Your task to perform on an android device: What's the weather going to be tomorrow? Image 0: 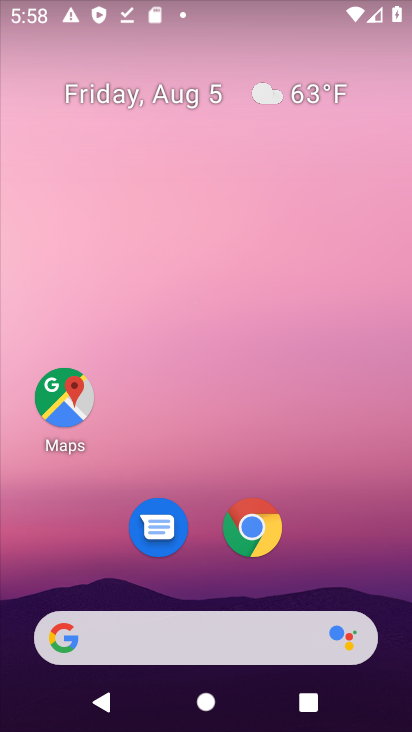
Step 0: drag from (204, 286) to (218, 193)
Your task to perform on an android device: What's the weather going to be tomorrow? Image 1: 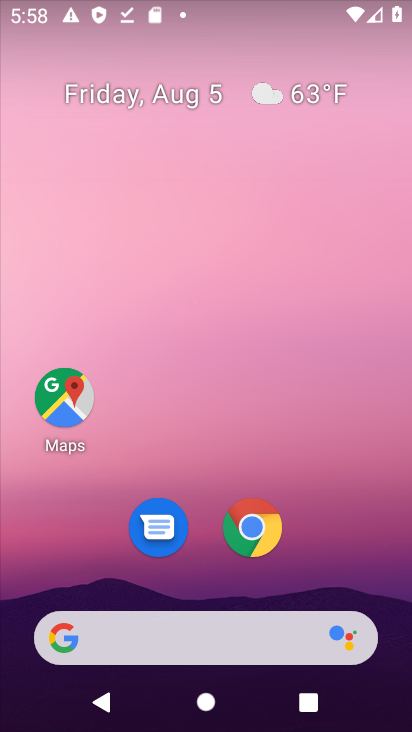
Step 1: drag from (229, 587) to (244, 85)
Your task to perform on an android device: What's the weather going to be tomorrow? Image 2: 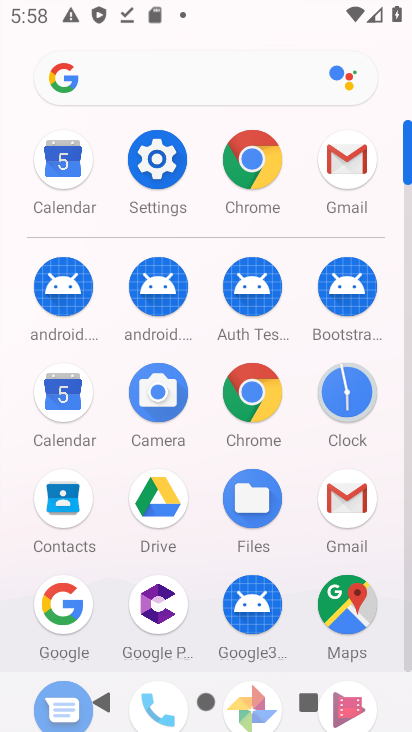
Step 2: drag from (198, 533) to (196, 282)
Your task to perform on an android device: What's the weather going to be tomorrow? Image 3: 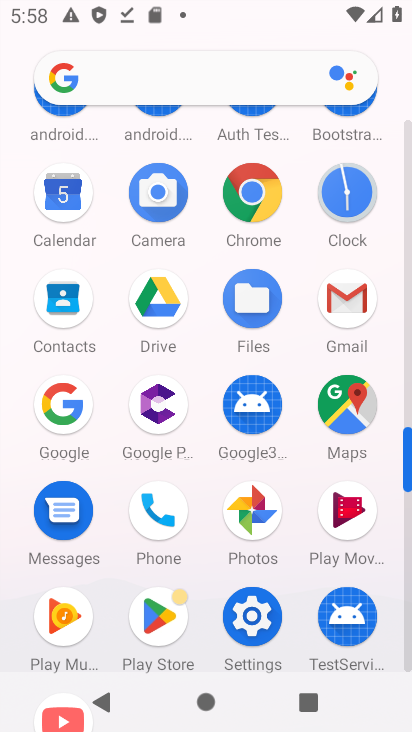
Step 3: click (181, 76)
Your task to perform on an android device: What's the weather going to be tomorrow? Image 4: 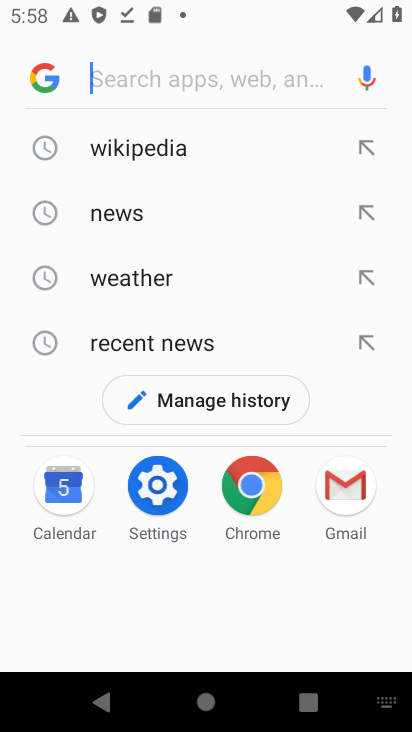
Step 4: type "What's the weather going to be tomorrow?"
Your task to perform on an android device: What's the weather going to be tomorrow? Image 5: 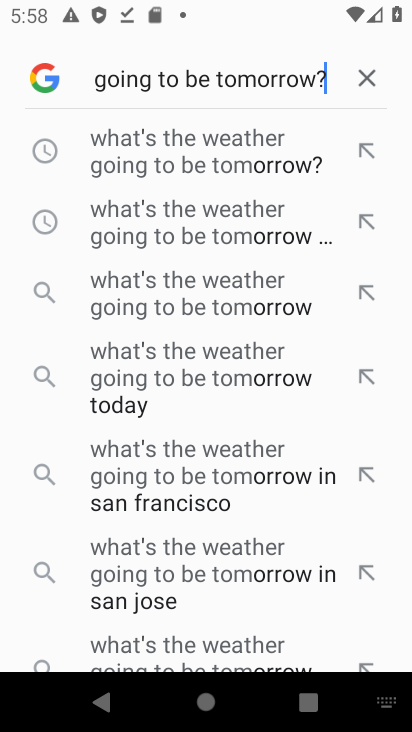
Step 5: type ""
Your task to perform on an android device: What's the weather going to be tomorrow? Image 6: 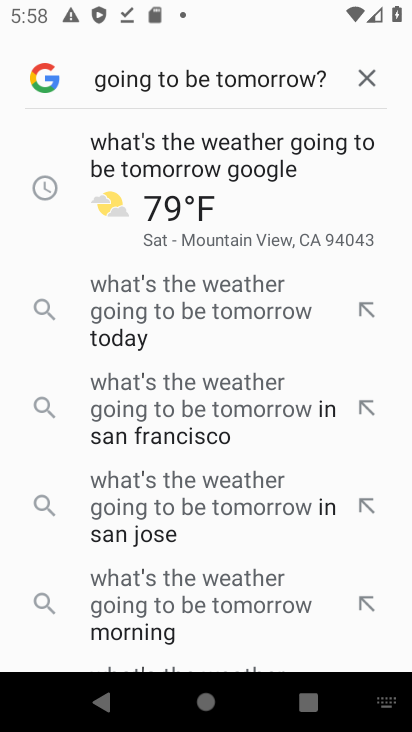
Step 6: click (137, 149)
Your task to perform on an android device: What's the weather going to be tomorrow? Image 7: 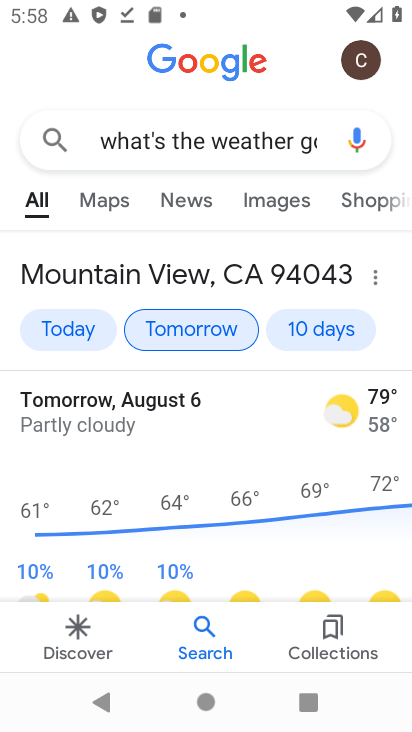
Step 7: task complete